Your task to perform on an android device: Open sound settings Image 0: 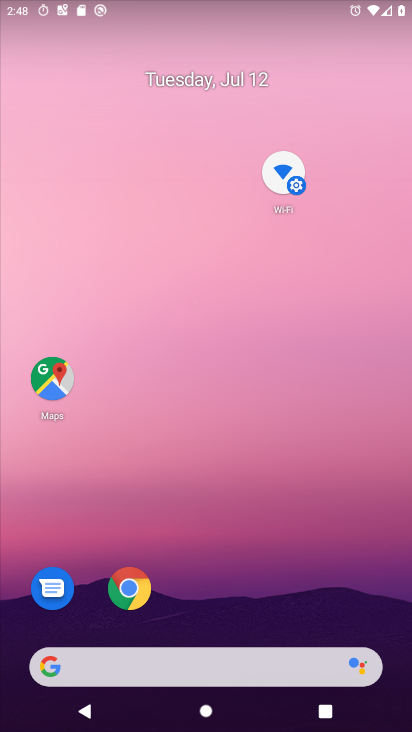
Step 0: drag from (191, 603) to (206, 88)
Your task to perform on an android device: Open sound settings Image 1: 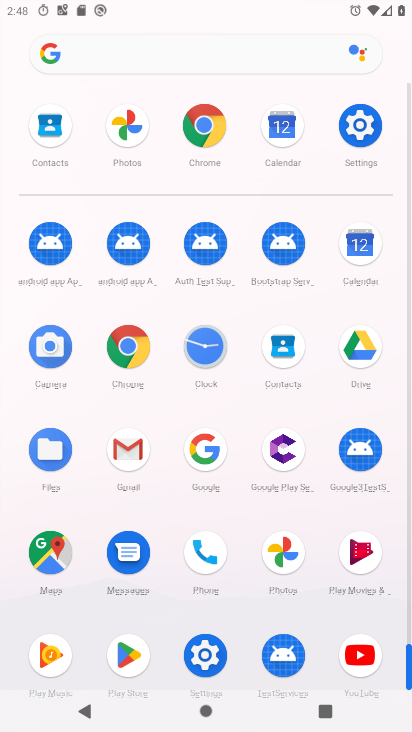
Step 1: click (195, 656)
Your task to perform on an android device: Open sound settings Image 2: 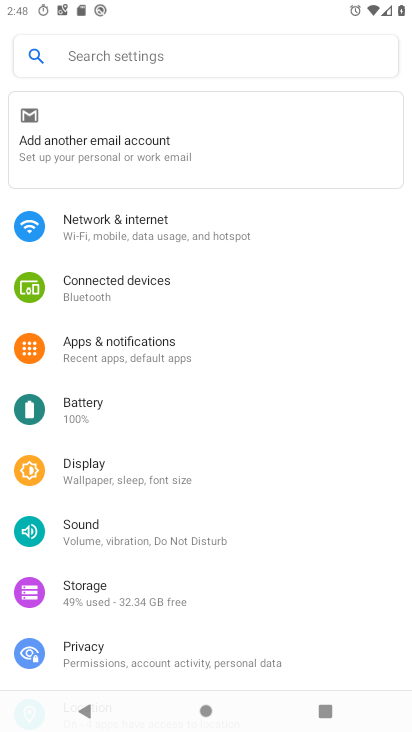
Step 2: click (88, 534)
Your task to perform on an android device: Open sound settings Image 3: 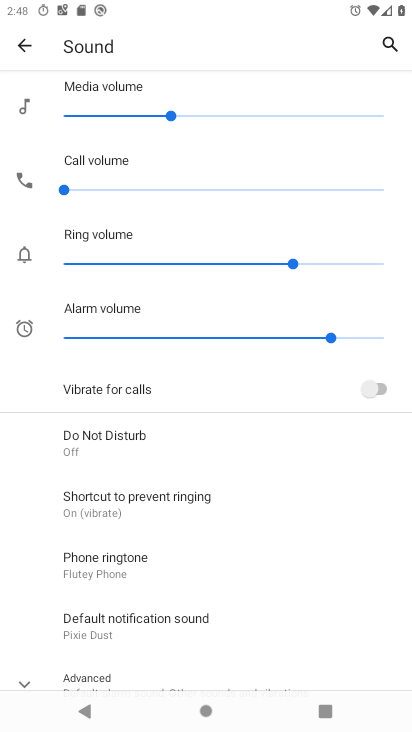
Step 3: drag from (150, 572) to (234, 313)
Your task to perform on an android device: Open sound settings Image 4: 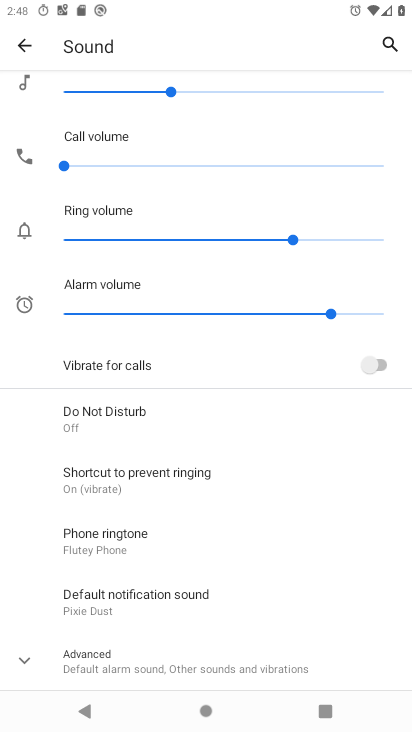
Step 4: drag from (187, 559) to (176, 276)
Your task to perform on an android device: Open sound settings Image 5: 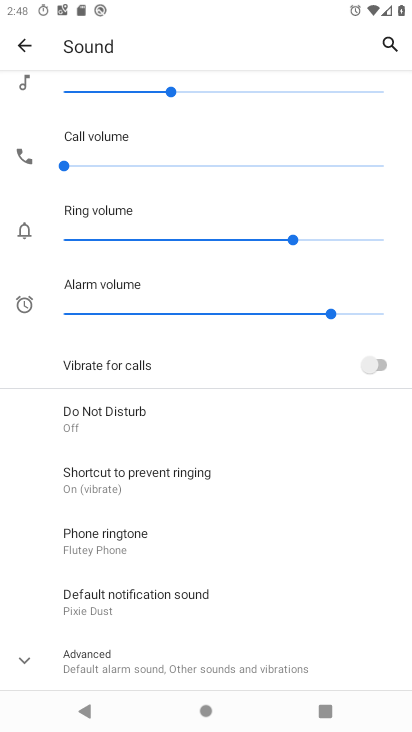
Step 5: drag from (162, 532) to (178, 419)
Your task to perform on an android device: Open sound settings Image 6: 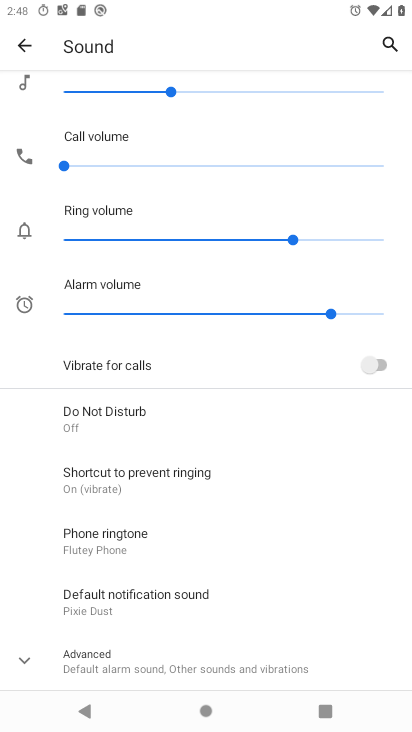
Step 6: click (191, 632)
Your task to perform on an android device: Open sound settings Image 7: 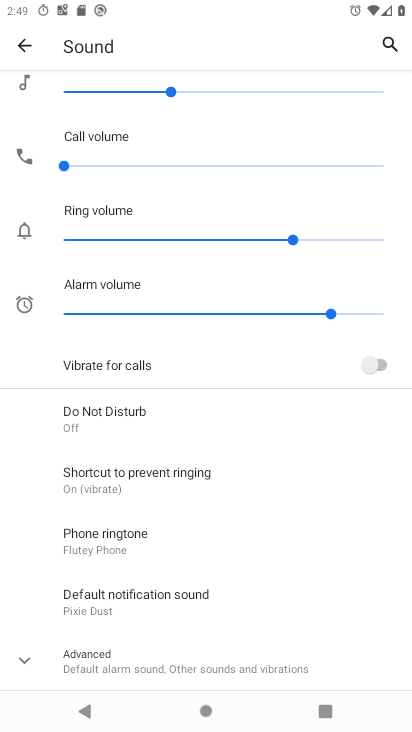
Step 7: task complete